Your task to perform on an android device: Check the weather Image 0: 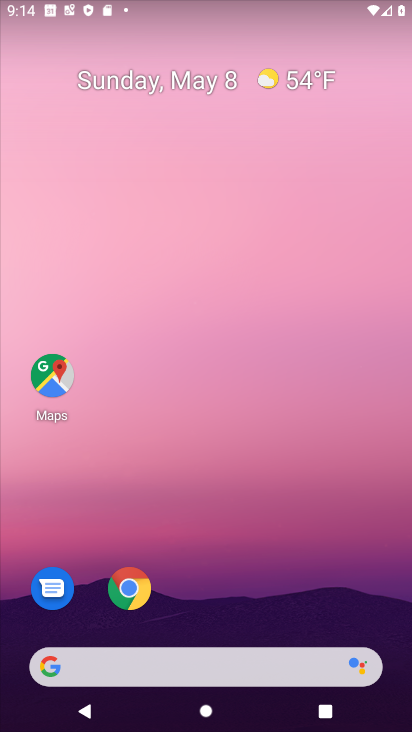
Step 0: click (285, 631)
Your task to perform on an android device: Check the weather Image 1: 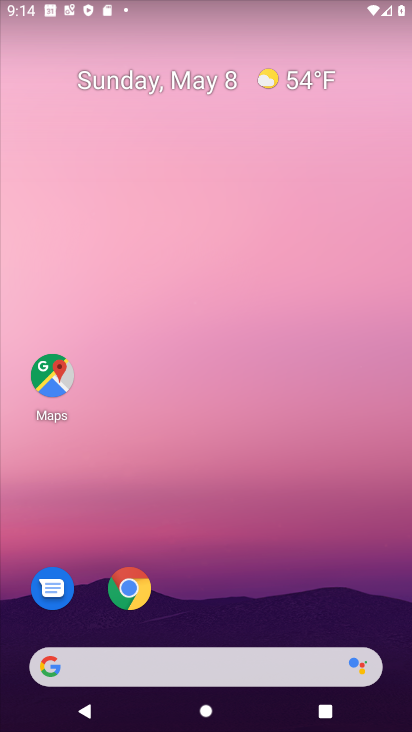
Step 1: click (255, 656)
Your task to perform on an android device: Check the weather Image 2: 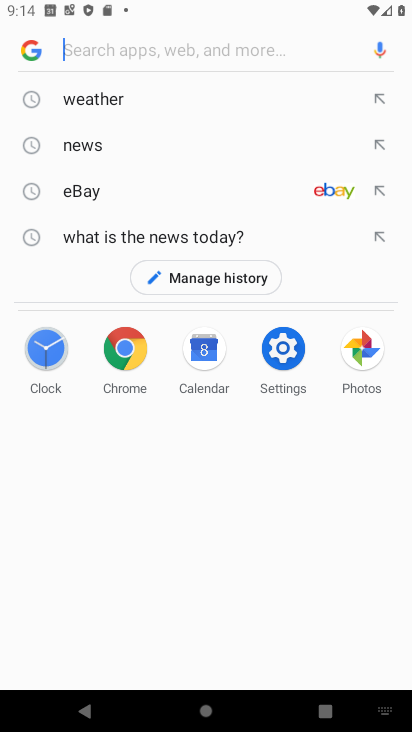
Step 2: click (184, 105)
Your task to perform on an android device: Check the weather Image 3: 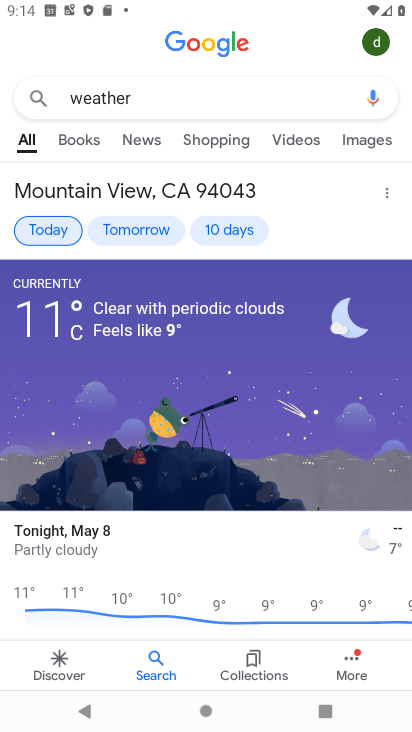
Step 3: task complete